Your task to perform on an android device: turn pop-ups off in chrome Image 0: 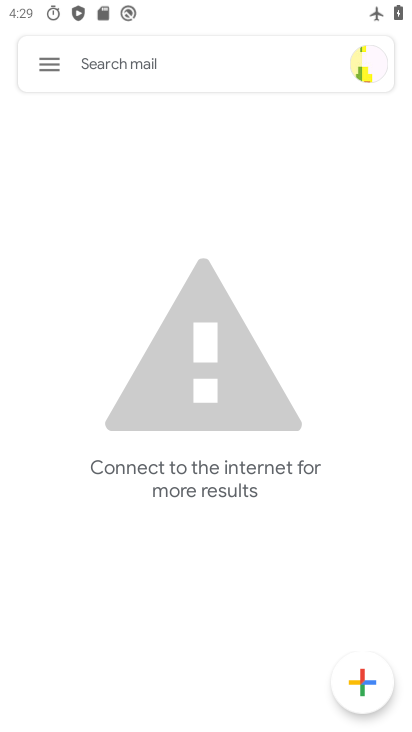
Step 0: press home button
Your task to perform on an android device: turn pop-ups off in chrome Image 1: 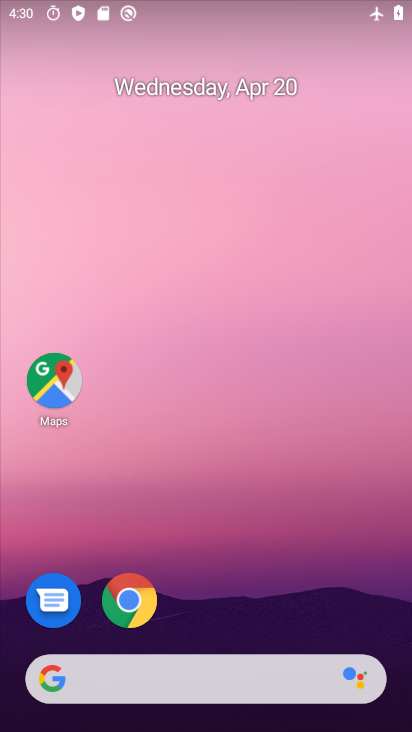
Step 1: click (134, 598)
Your task to perform on an android device: turn pop-ups off in chrome Image 2: 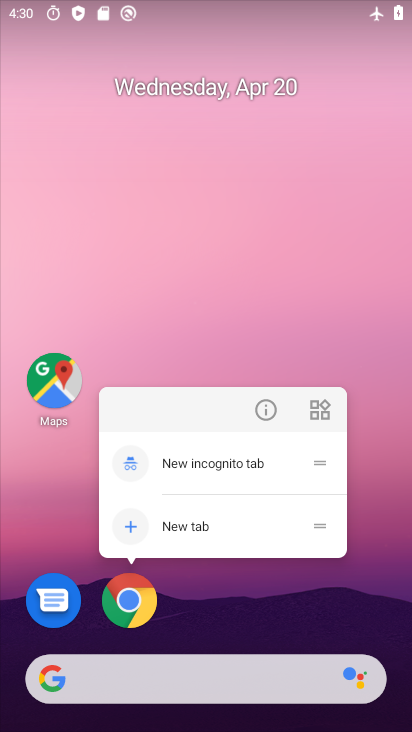
Step 2: click (134, 610)
Your task to perform on an android device: turn pop-ups off in chrome Image 3: 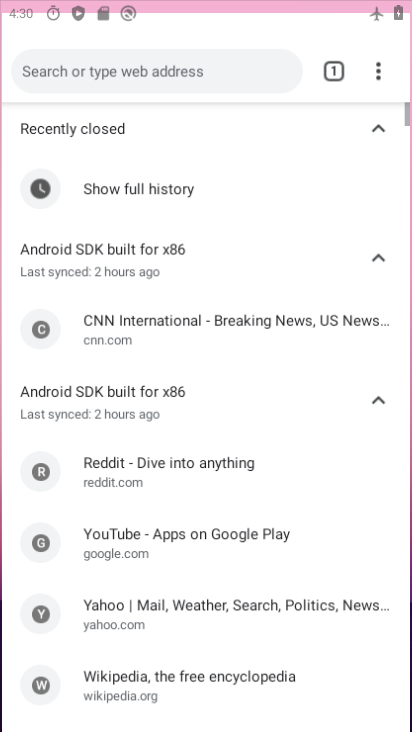
Step 3: click (134, 604)
Your task to perform on an android device: turn pop-ups off in chrome Image 4: 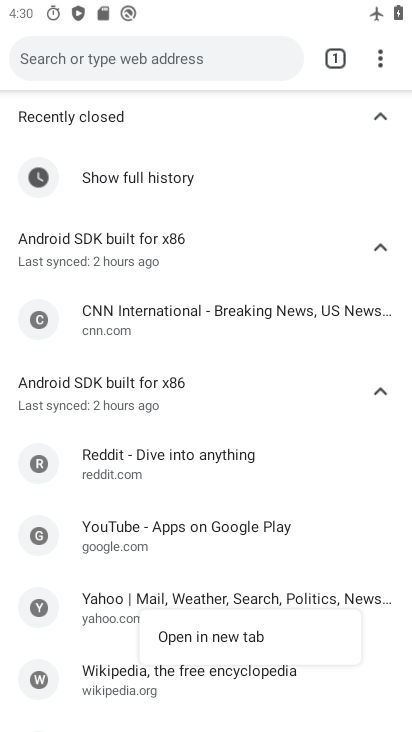
Step 4: click (380, 59)
Your task to perform on an android device: turn pop-ups off in chrome Image 5: 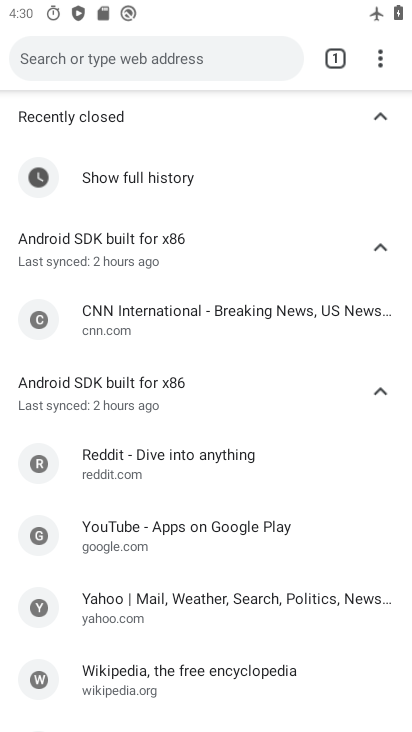
Step 5: drag from (377, 53) to (203, 548)
Your task to perform on an android device: turn pop-ups off in chrome Image 6: 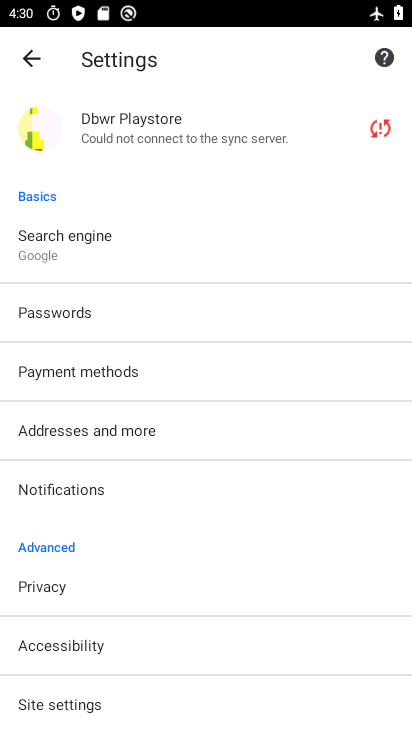
Step 6: drag from (217, 549) to (286, 145)
Your task to perform on an android device: turn pop-ups off in chrome Image 7: 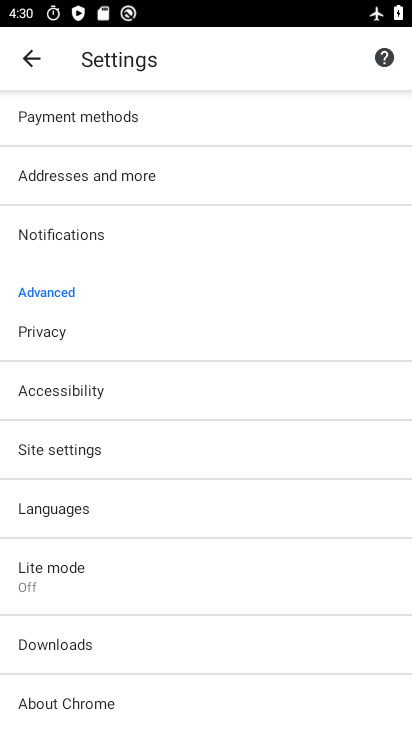
Step 7: click (136, 446)
Your task to perform on an android device: turn pop-ups off in chrome Image 8: 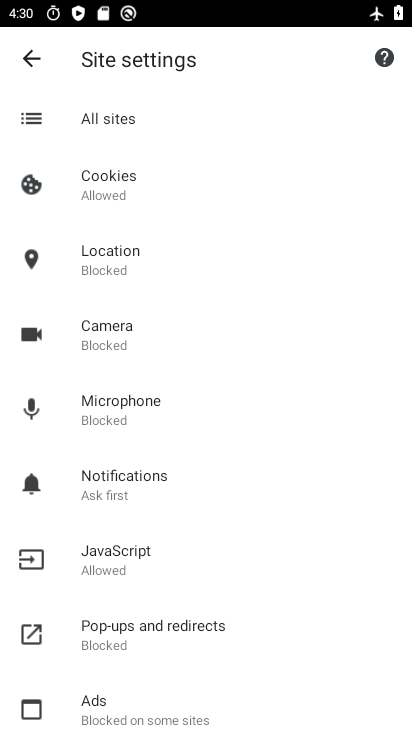
Step 8: click (221, 635)
Your task to perform on an android device: turn pop-ups off in chrome Image 9: 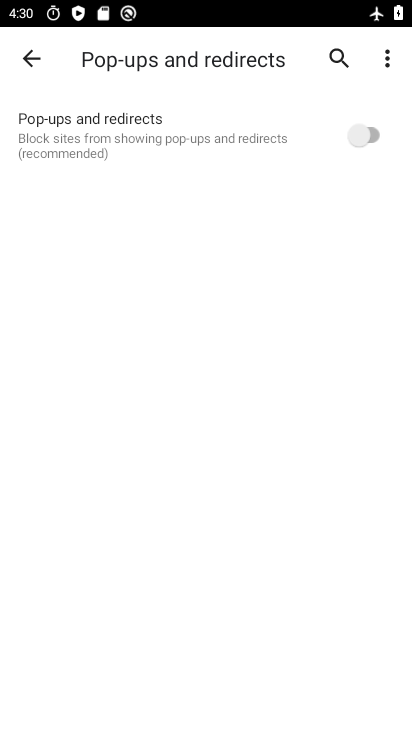
Step 9: task complete